Your task to perform on an android device: When is my next meeting? Image 0: 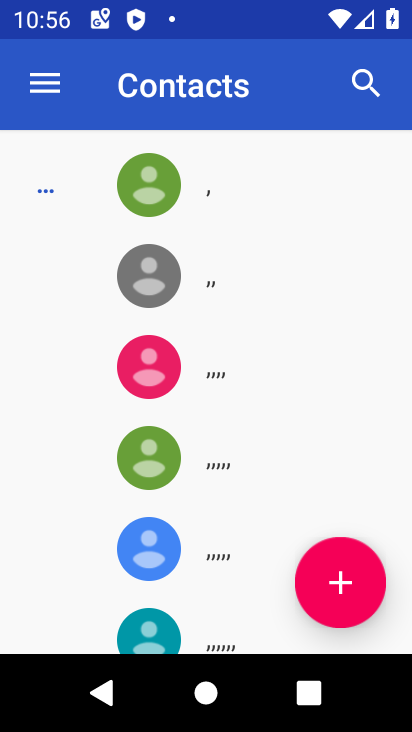
Step 0: press home button
Your task to perform on an android device: When is my next meeting? Image 1: 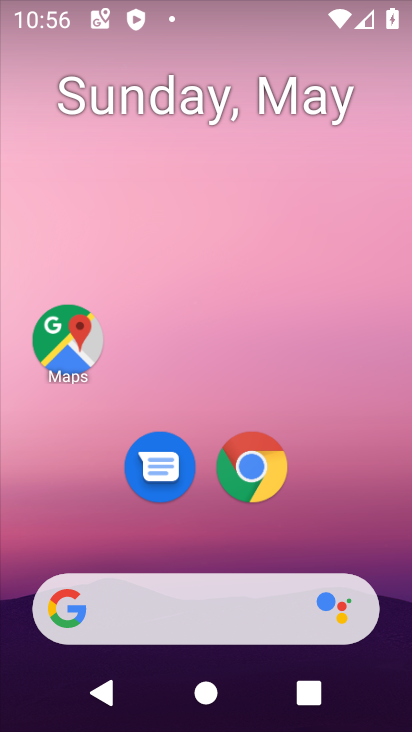
Step 1: drag from (377, 551) to (397, 10)
Your task to perform on an android device: When is my next meeting? Image 2: 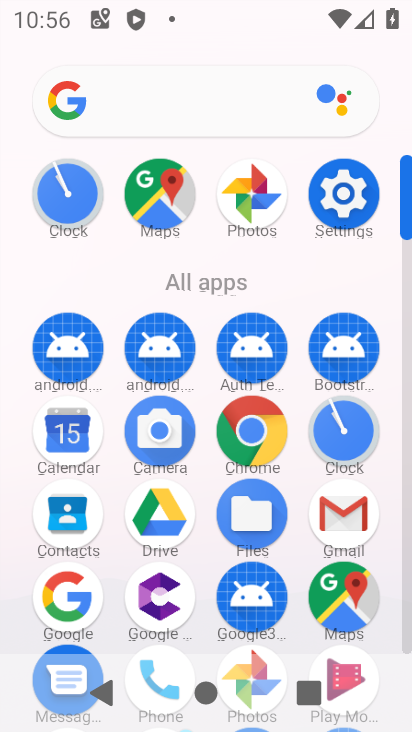
Step 2: click (65, 432)
Your task to perform on an android device: When is my next meeting? Image 3: 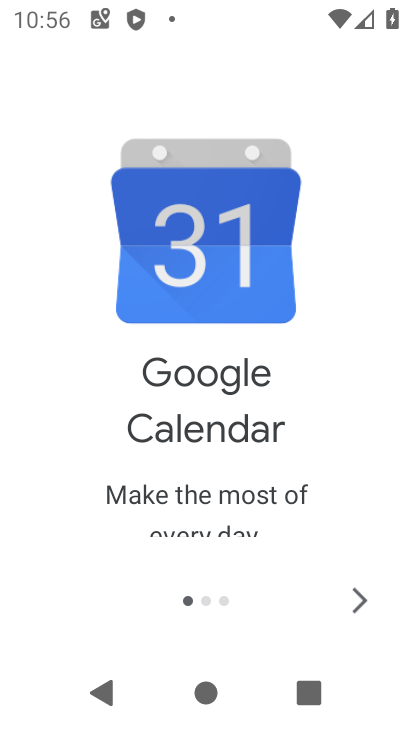
Step 3: click (359, 594)
Your task to perform on an android device: When is my next meeting? Image 4: 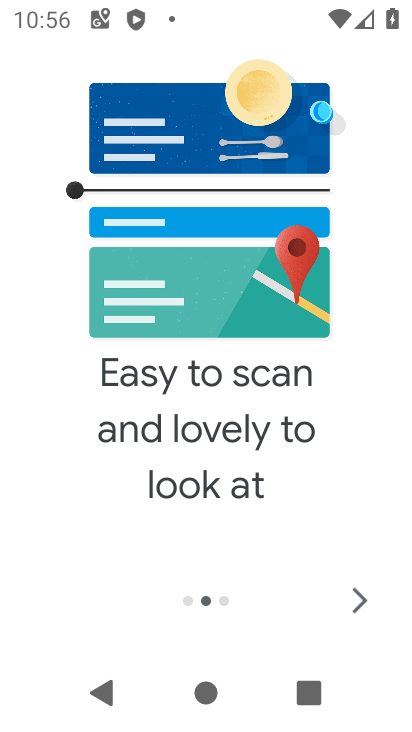
Step 4: click (359, 594)
Your task to perform on an android device: When is my next meeting? Image 5: 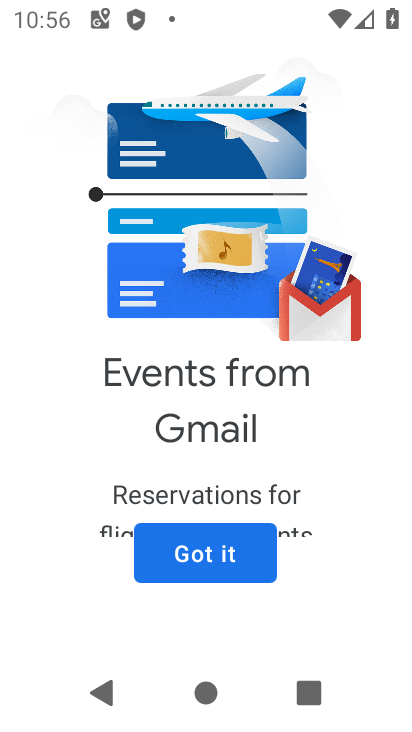
Step 5: click (226, 562)
Your task to perform on an android device: When is my next meeting? Image 6: 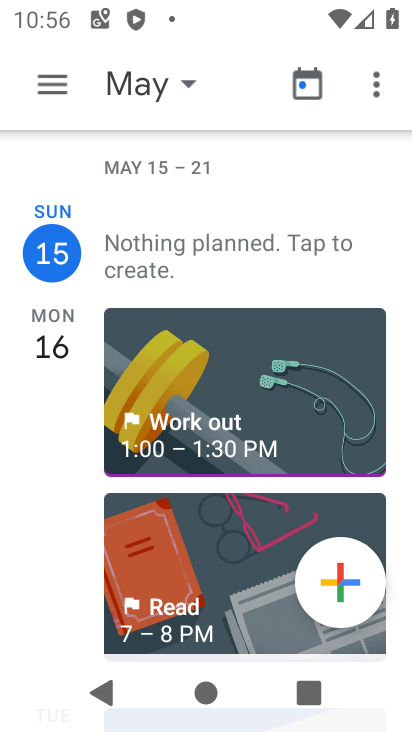
Step 6: drag from (183, 400) to (179, 89)
Your task to perform on an android device: When is my next meeting? Image 7: 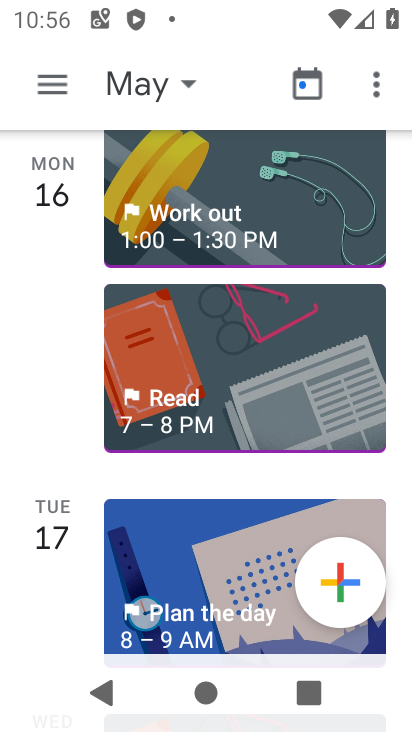
Step 7: drag from (170, 498) to (170, 76)
Your task to perform on an android device: When is my next meeting? Image 8: 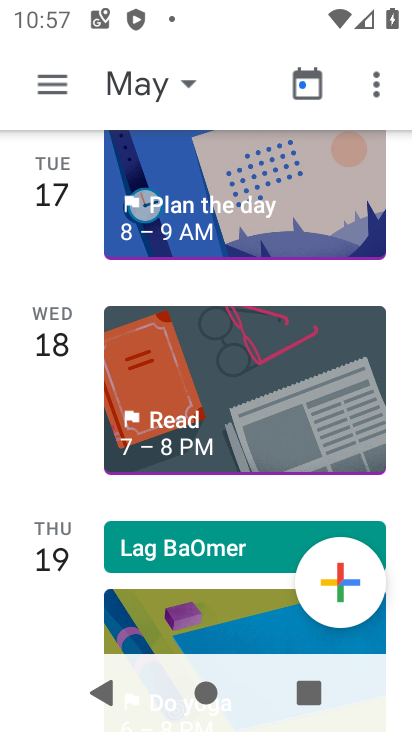
Step 8: drag from (174, 559) to (160, 143)
Your task to perform on an android device: When is my next meeting? Image 9: 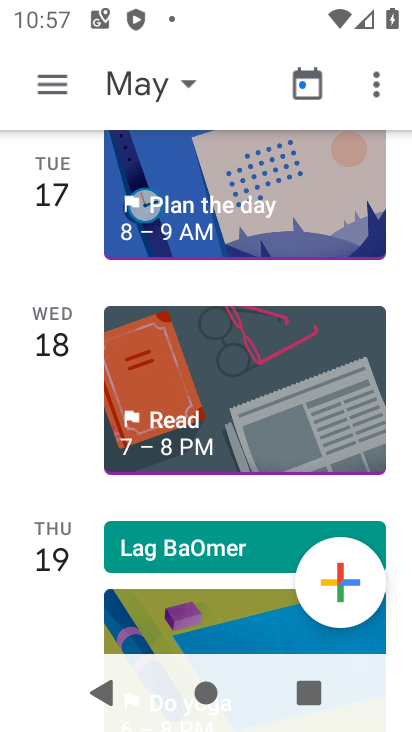
Step 9: drag from (209, 504) to (205, 257)
Your task to perform on an android device: When is my next meeting? Image 10: 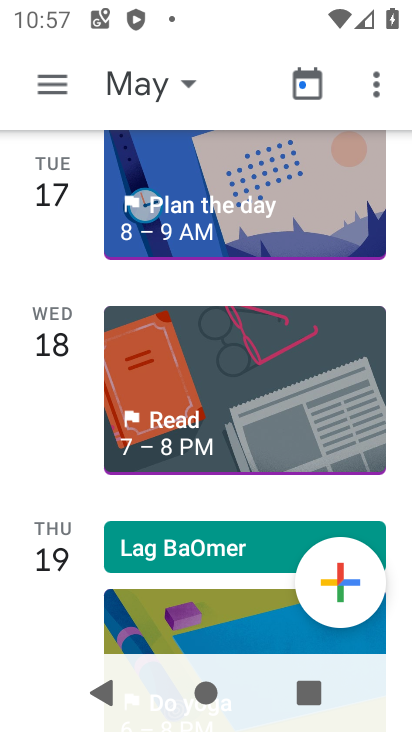
Step 10: drag from (205, 505) to (213, 251)
Your task to perform on an android device: When is my next meeting? Image 11: 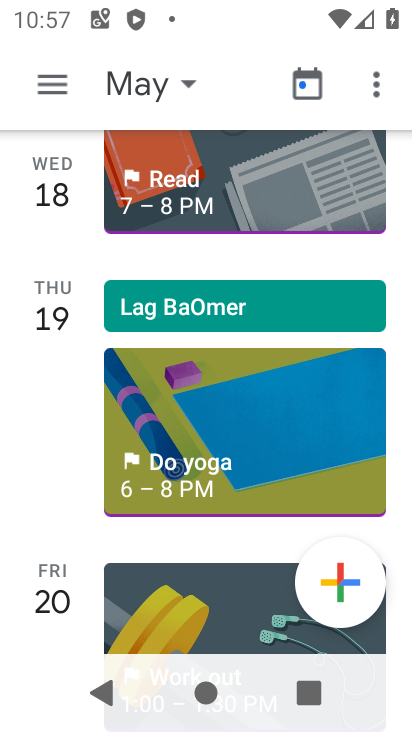
Step 11: click (32, 83)
Your task to perform on an android device: When is my next meeting? Image 12: 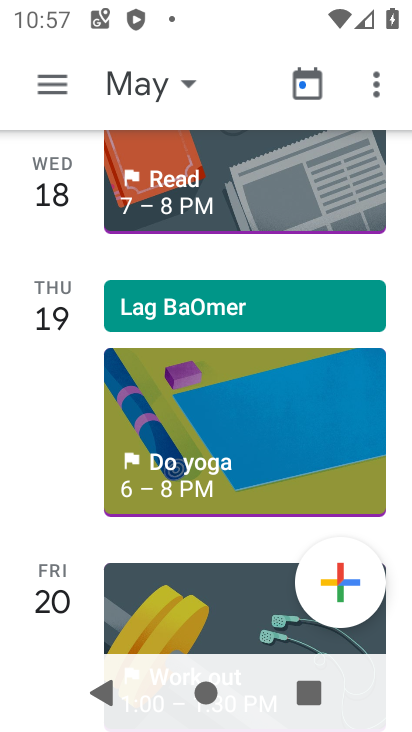
Step 12: click (51, 82)
Your task to perform on an android device: When is my next meeting? Image 13: 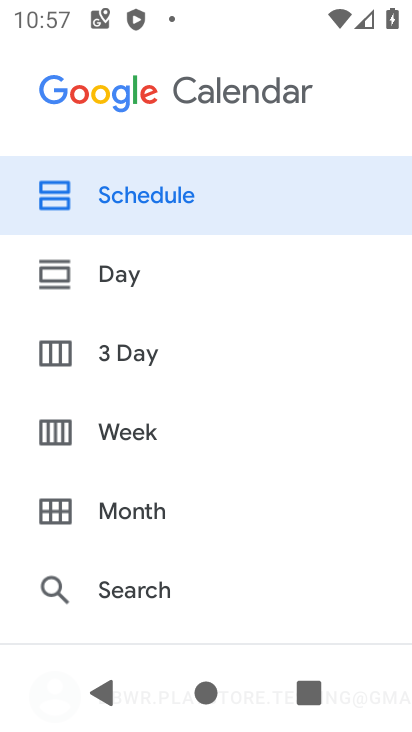
Step 13: drag from (180, 516) to (182, 158)
Your task to perform on an android device: When is my next meeting? Image 14: 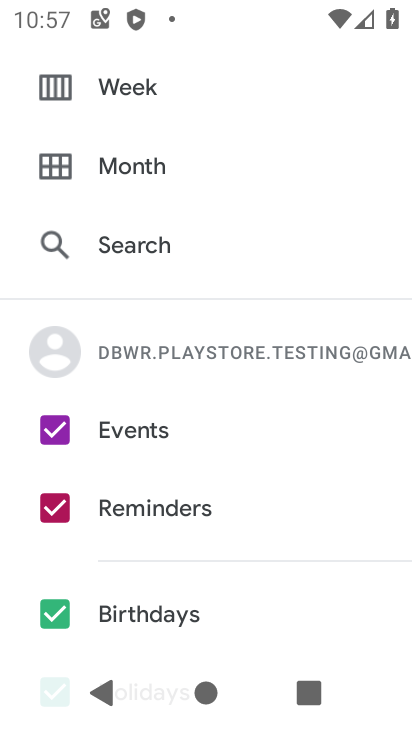
Step 14: drag from (274, 188) to (261, 477)
Your task to perform on an android device: When is my next meeting? Image 15: 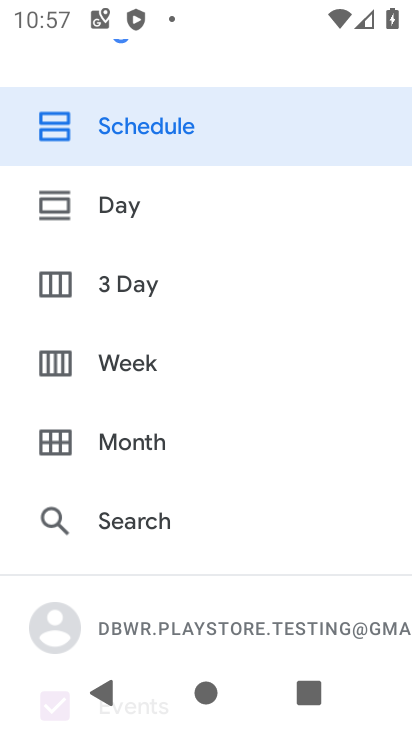
Step 15: click (108, 132)
Your task to perform on an android device: When is my next meeting? Image 16: 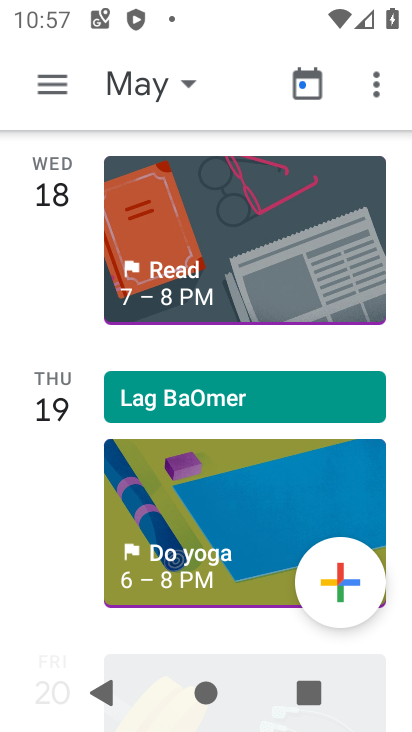
Step 16: drag from (145, 346) to (174, 208)
Your task to perform on an android device: When is my next meeting? Image 17: 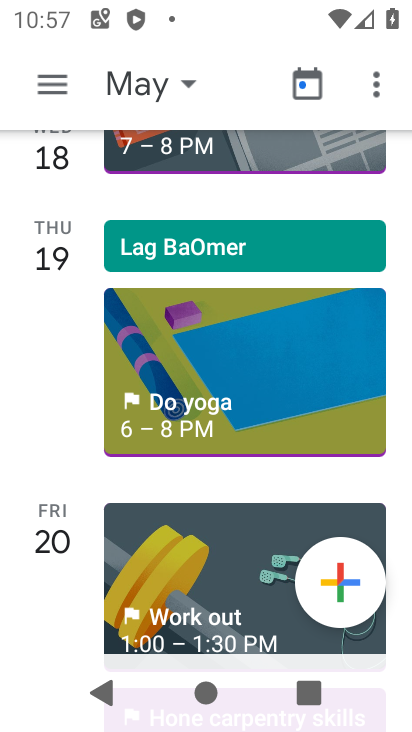
Step 17: drag from (151, 468) to (162, 267)
Your task to perform on an android device: When is my next meeting? Image 18: 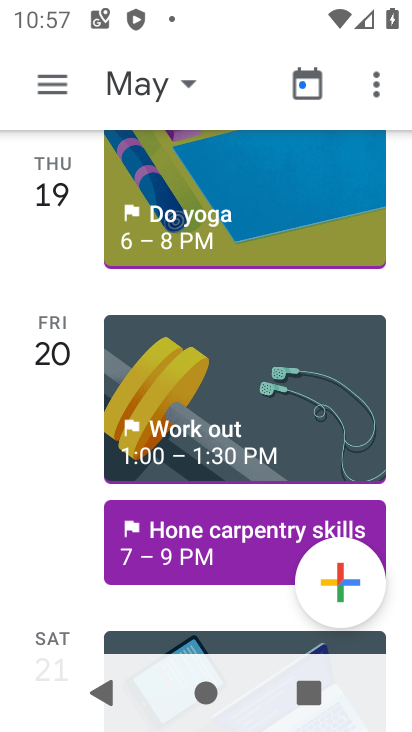
Step 18: click (165, 501)
Your task to perform on an android device: When is my next meeting? Image 19: 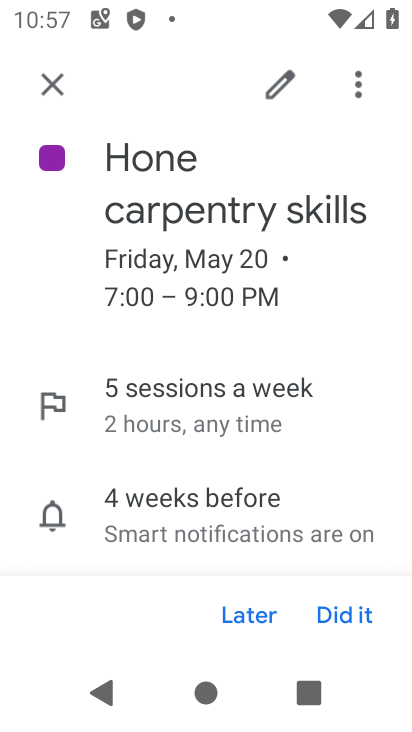
Step 19: task complete